Your task to perform on an android device: toggle translation in the chrome app Image 0: 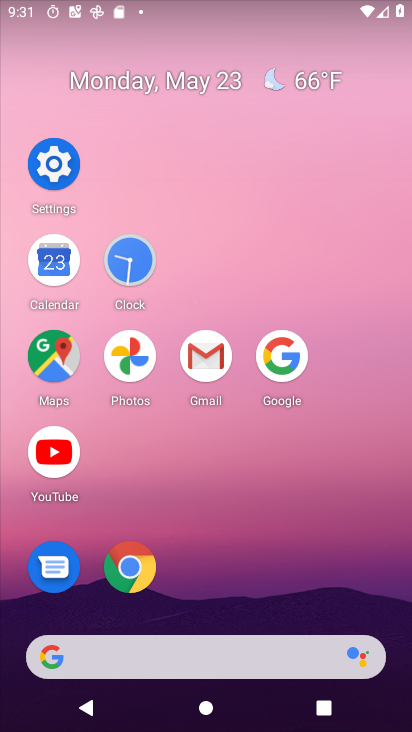
Step 0: click (136, 558)
Your task to perform on an android device: toggle translation in the chrome app Image 1: 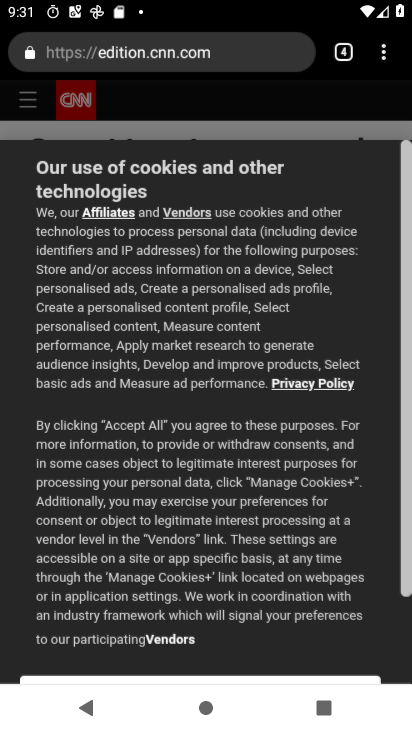
Step 1: click (383, 90)
Your task to perform on an android device: toggle translation in the chrome app Image 2: 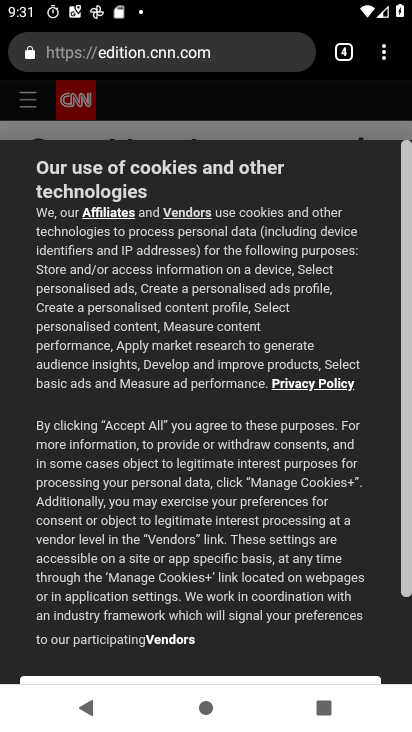
Step 2: click (387, 48)
Your task to perform on an android device: toggle translation in the chrome app Image 3: 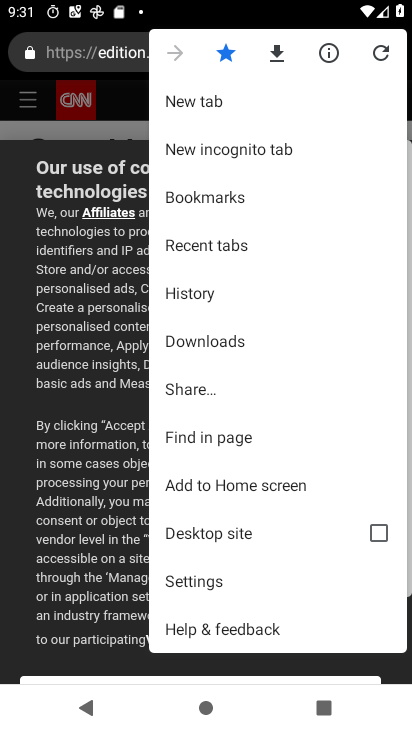
Step 3: drag from (231, 546) to (249, 221)
Your task to perform on an android device: toggle translation in the chrome app Image 4: 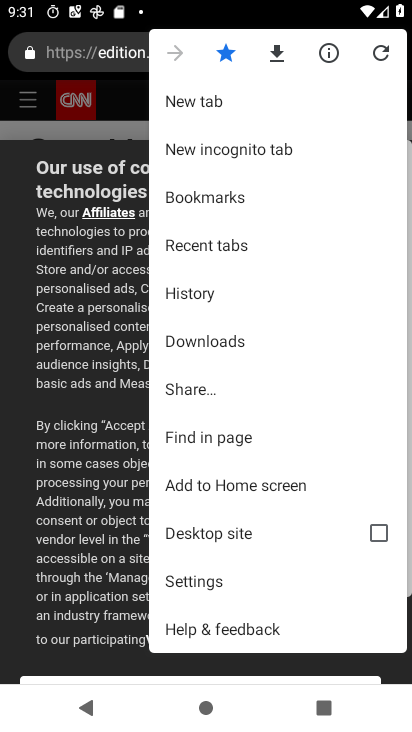
Step 4: click (236, 580)
Your task to perform on an android device: toggle translation in the chrome app Image 5: 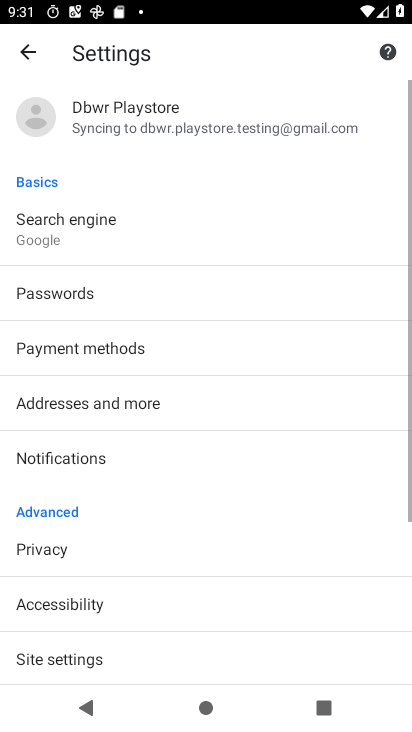
Step 5: drag from (236, 580) to (249, 239)
Your task to perform on an android device: toggle translation in the chrome app Image 6: 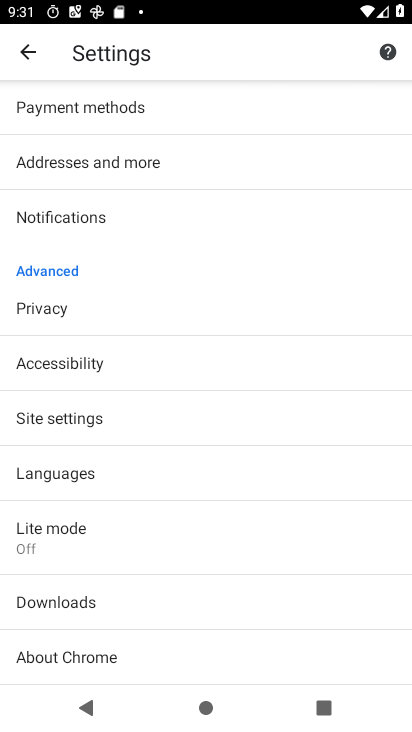
Step 6: click (162, 466)
Your task to perform on an android device: toggle translation in the chrome app Image 7: 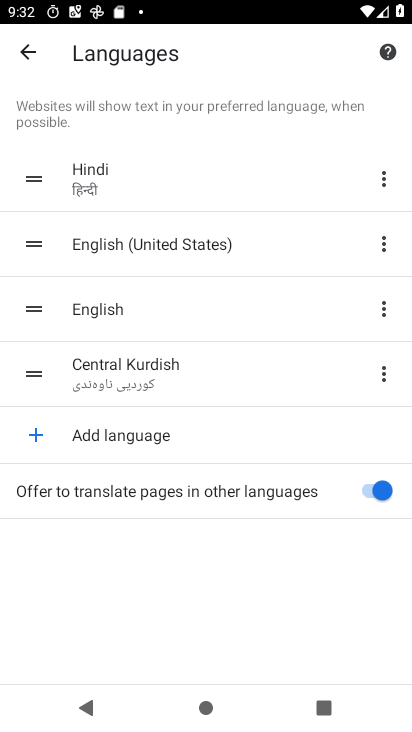
Step 7: click (371, 487)
Your task to perform on an android device: toggle translation in the chrome app Image 8: 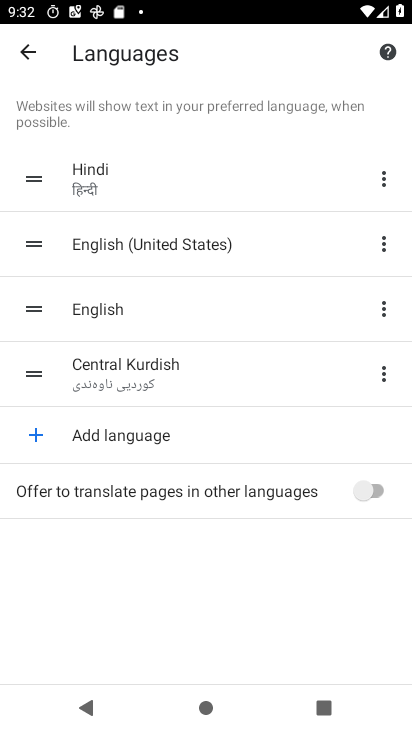
Step 8: task complete